Your task to perform on an android device: Open eBay Image 0: 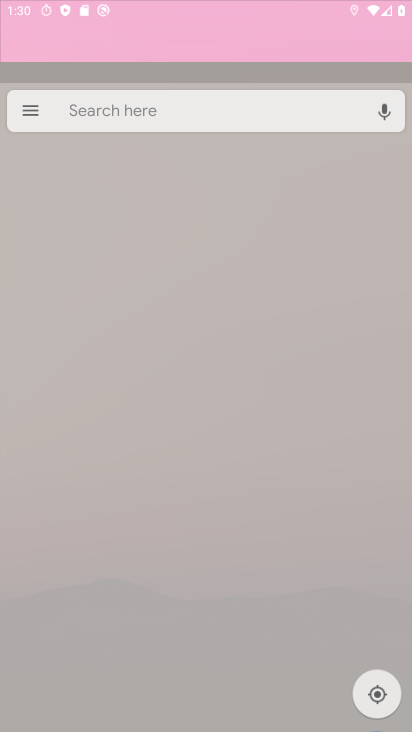
Step 0: click (215, 167)
Your task to perform on an android device: Open eBay Image 1: 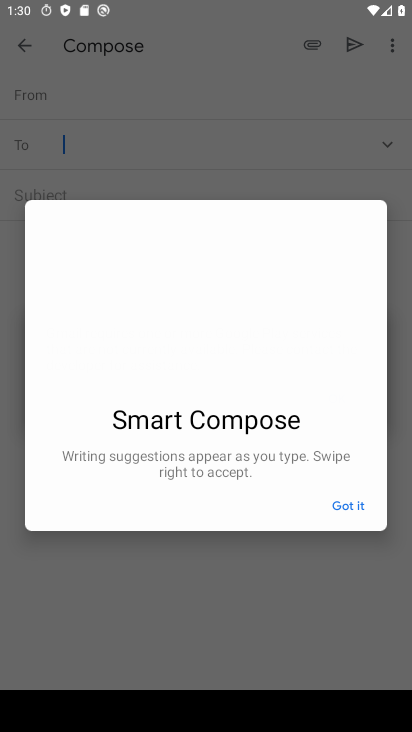
Step 1: press home button
Your task to perform on an android device: Open eBay Image 2: 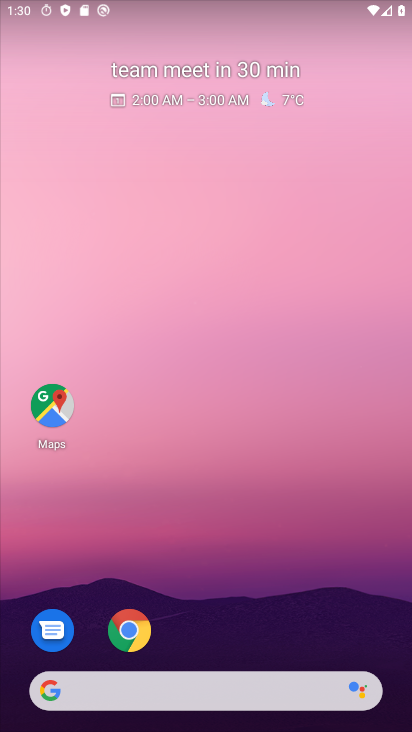
Step 2: click (139, 634)
Your task to perform on an android device: Open eBay Image 3: 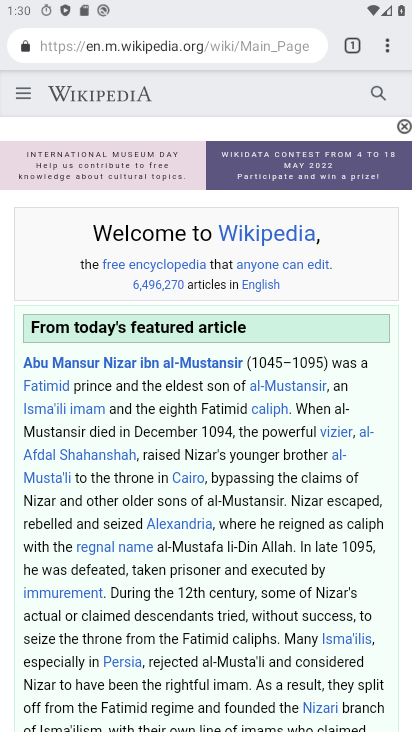
Step 3: click (177, 49)
Your task to perform on an android device: Open eBay Image 4: 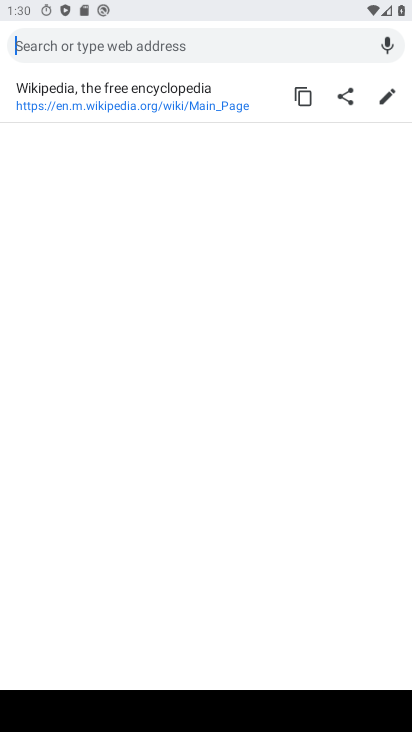
Step 4: type "ebay"
Your task to perform on an android device: Open eBay Image 5: 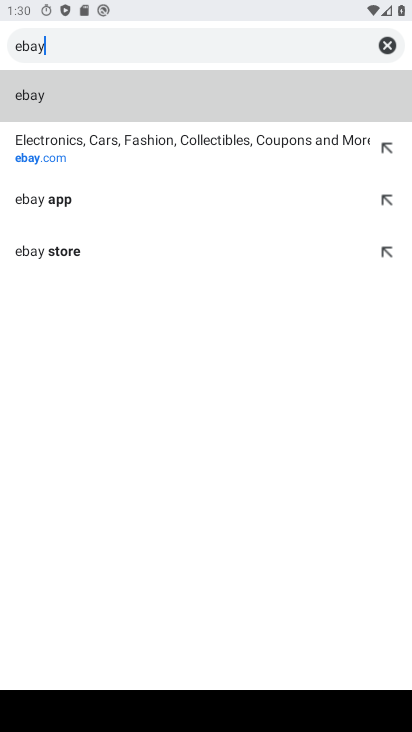
Step 5: click (111, 164)
Your task to perform on an android device: Open eBay Image 6: 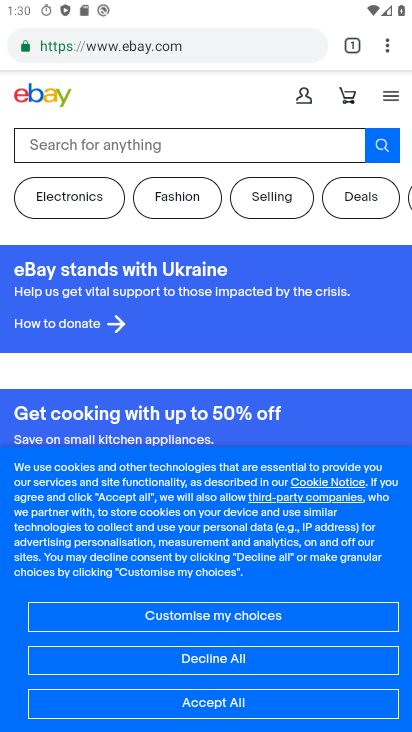
Step 6: task complete